Your task to perform on an android device: turn off smart reply in the gmail app Image 0: 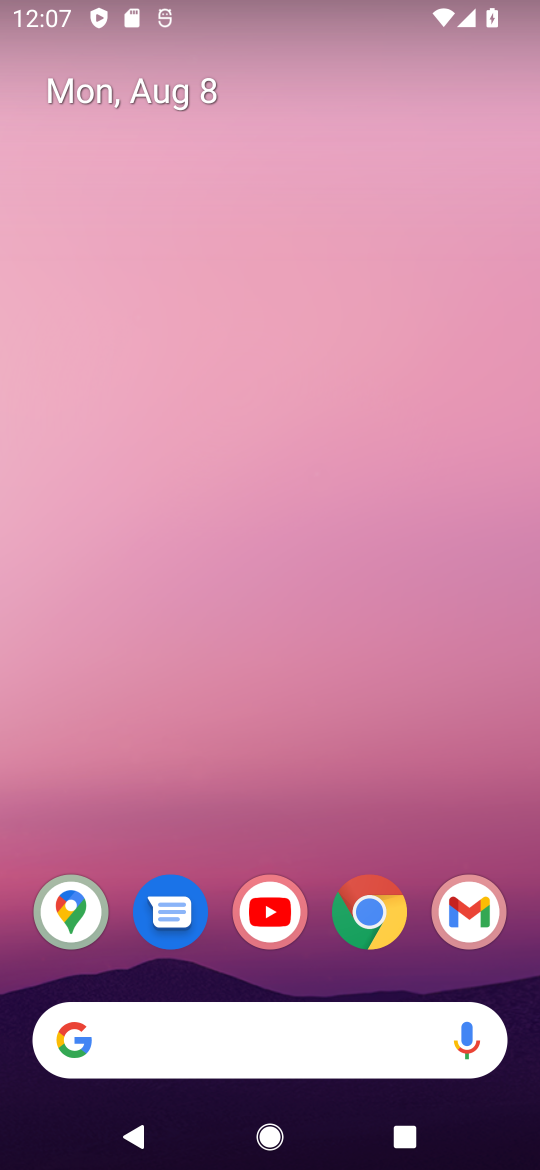
Step 0: click (479, 908)
Your task to perform on an android device: turn off smart reply in the gmail app Image 1: 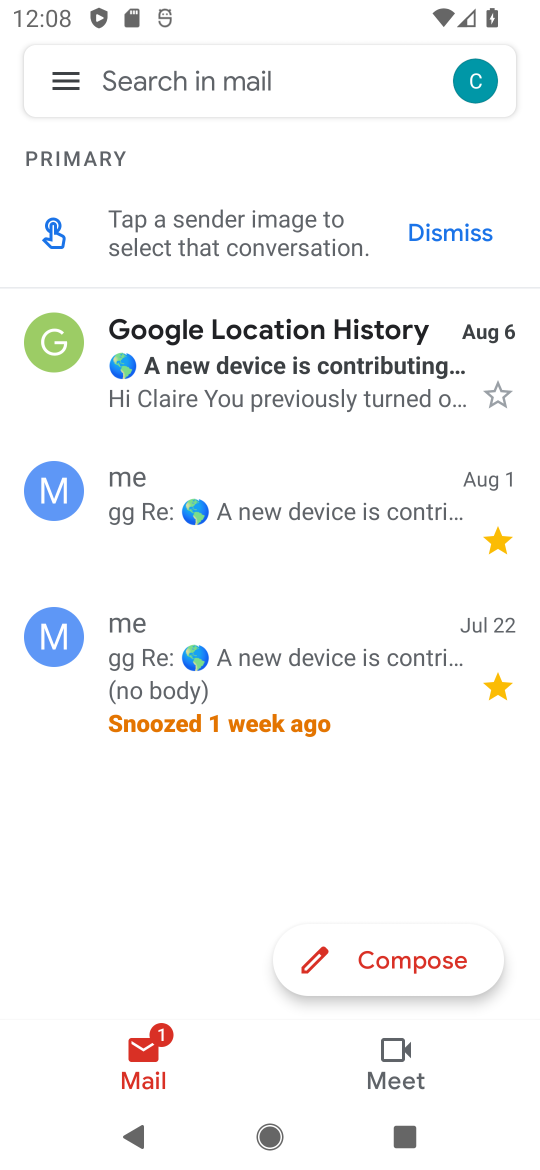
Step 1: click (77, 77)
Your task to perform on an android device: turn off smart reply in the gmail app Image 2: 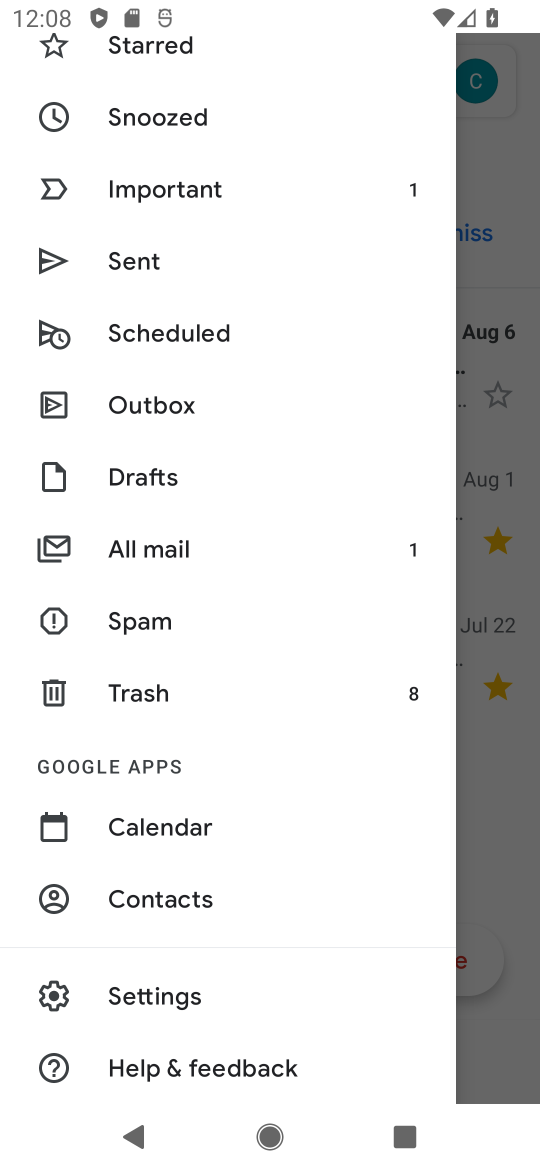
Step 2: click (190, 998)
Your task to perform on an android device: turn off smart reply in the gmail app Image 3: 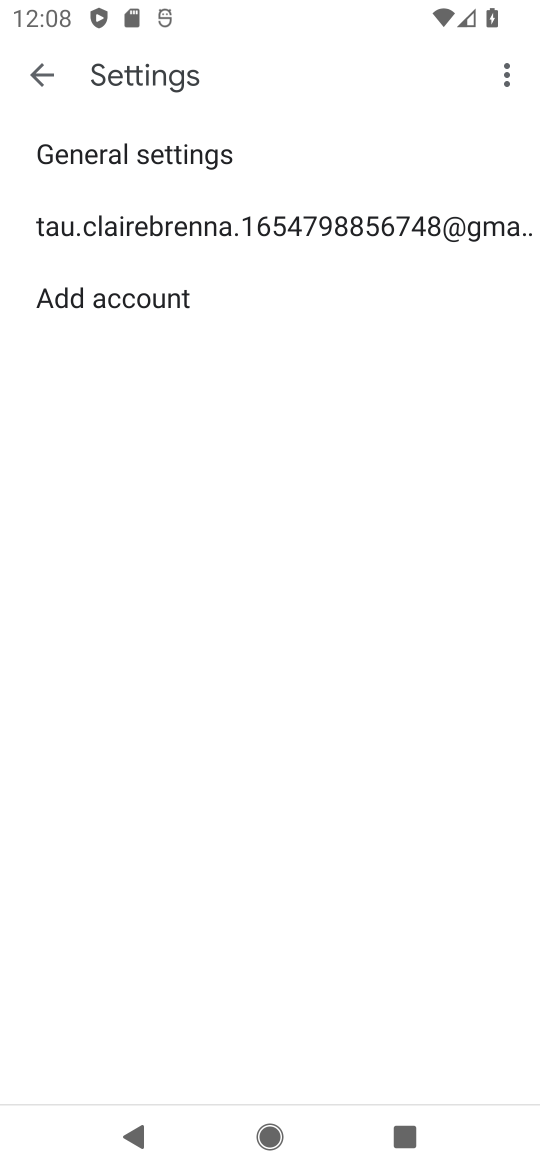
Step 3: click (237, 234)
Your task to perform on an android device: turn off smart reply in the gmail app Image 4: 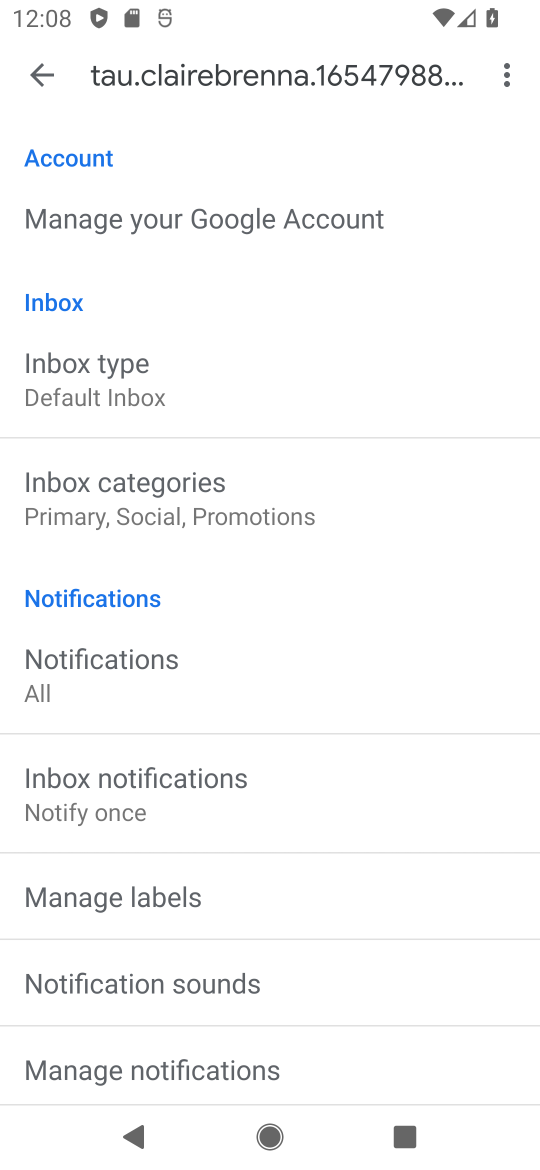
Step 4: task complete